Your task to perform on an android device: turn off sleep mode Image 0: 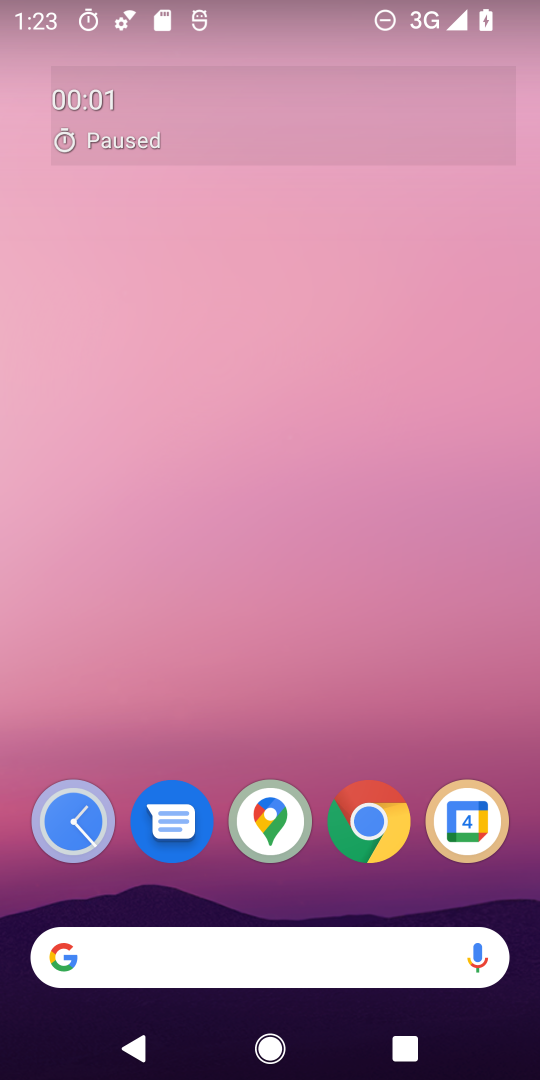
Step 0: drag from (449, 904) to (218, 185)
Your task to perform on an android device: turn off sleep mode Image 1: 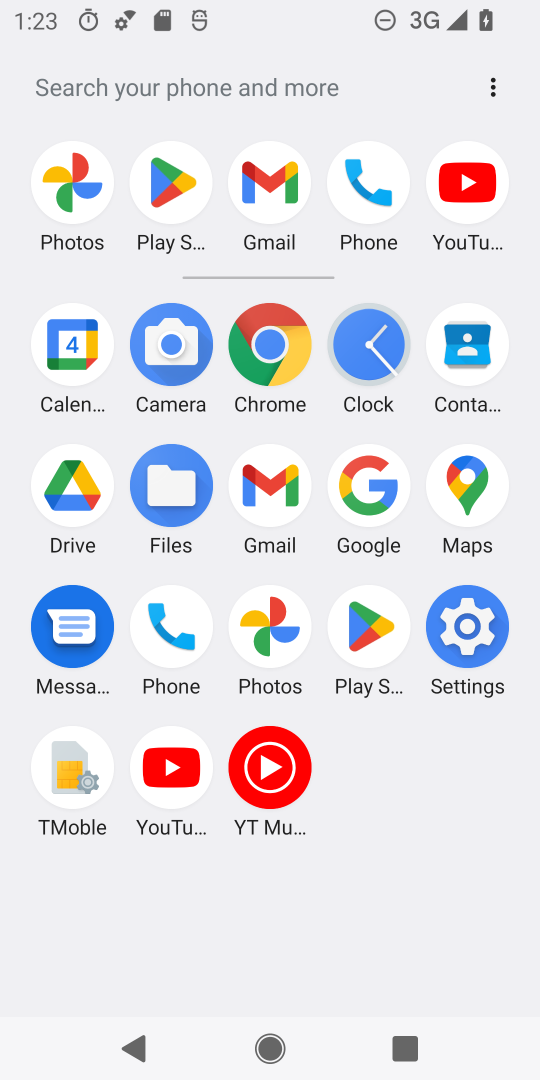
Step 1: click (458, 596)
Your task to perform on an android device: turn off sleep mode Image 2: 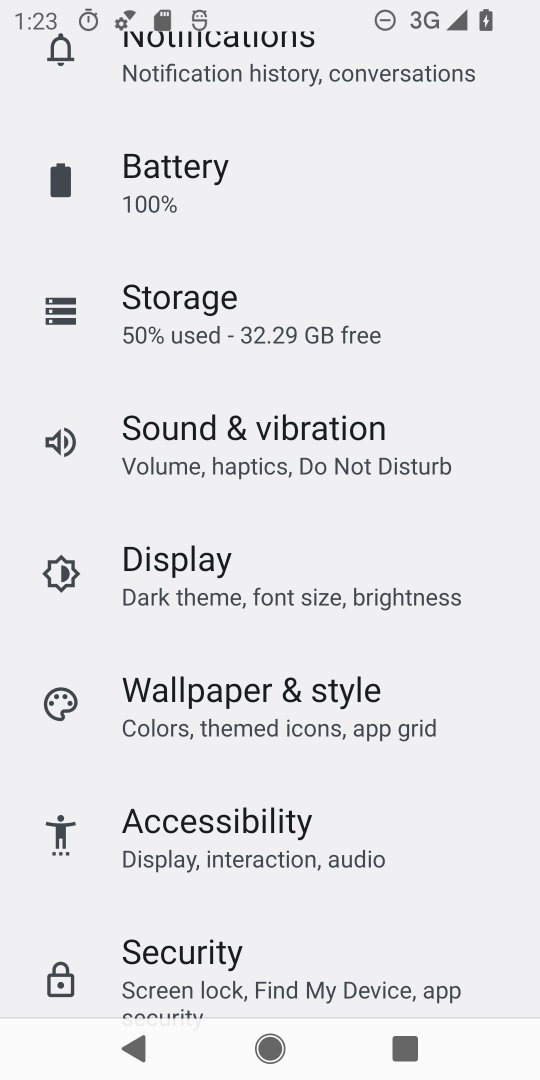
Step 2: task complete